Your task to perform on an android device: turn on bluetooth scan Image 0: 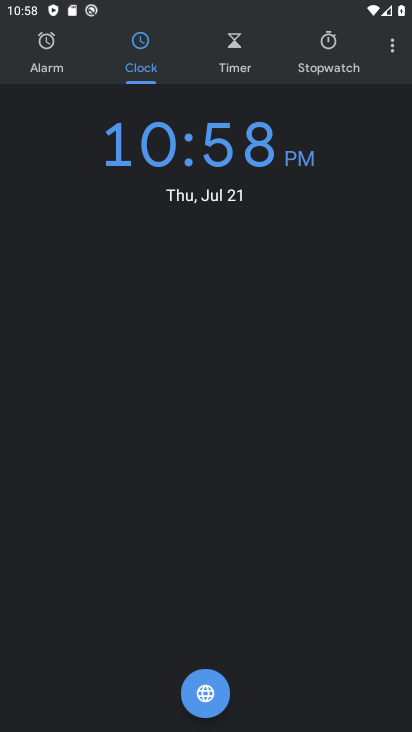
Step 0: press home button
Your task to perform on an android device: turn on bluetooth scan Image 1: 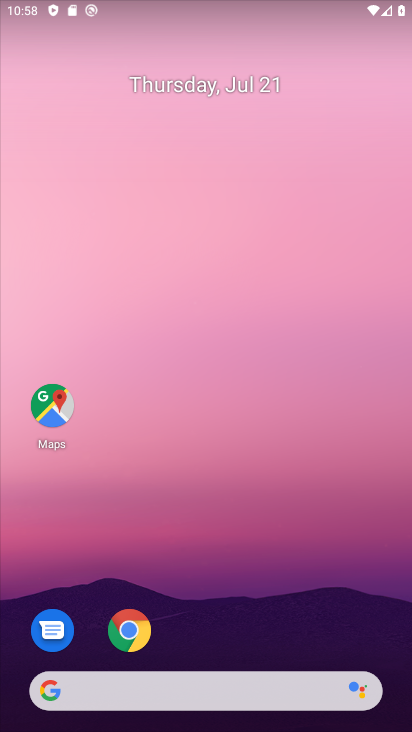
Step 1: drag from (208, 678) to (202, 30)
Your task to perform on an android device: turn on bluetooth scan Image 2: 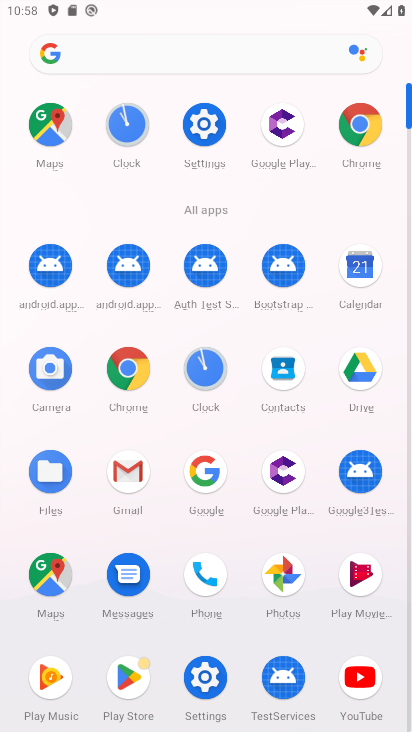
Step 2: click (203, 668)
Your task to perform on an android device: turn on bluetooth scan Image 3: 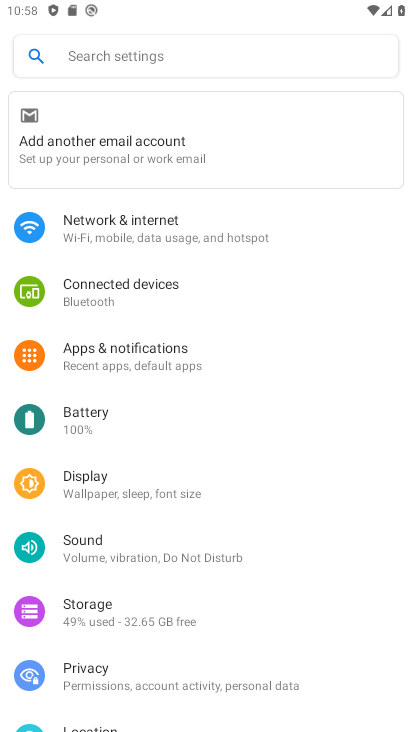
Step 3: click (90, 728)
Your task to perform on an android device: turn on bluetooth scan Image 4: 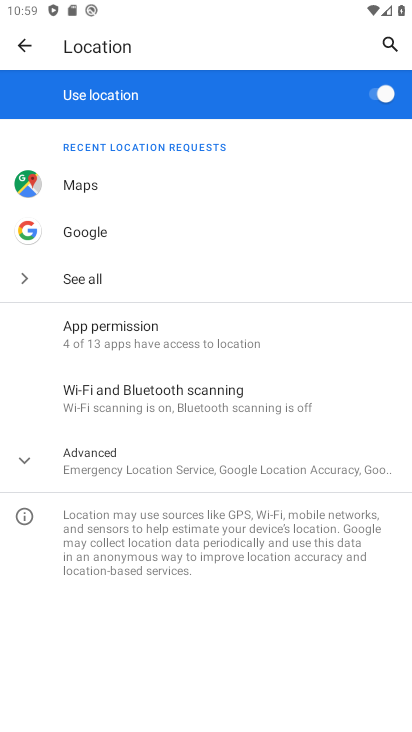
Step 4: click (120, 394)
Your task to perform on an android device: turn on bluetooth scan Image 5: 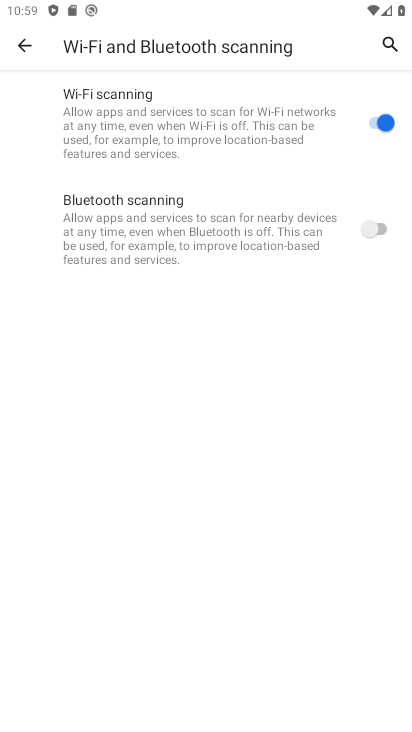
Step 5: click (379, 217)
Your task to perform on an android device: turn on bluetooth scan Image 6: 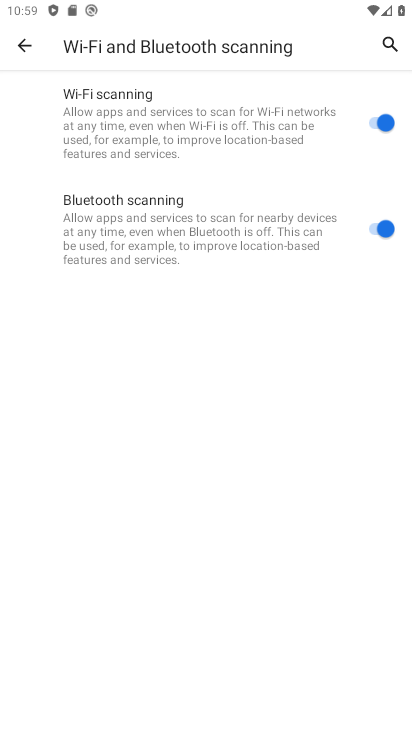
Step 6: task complete